Your task to perform on an android device: find snoozed emails in the gmail app Image 0: 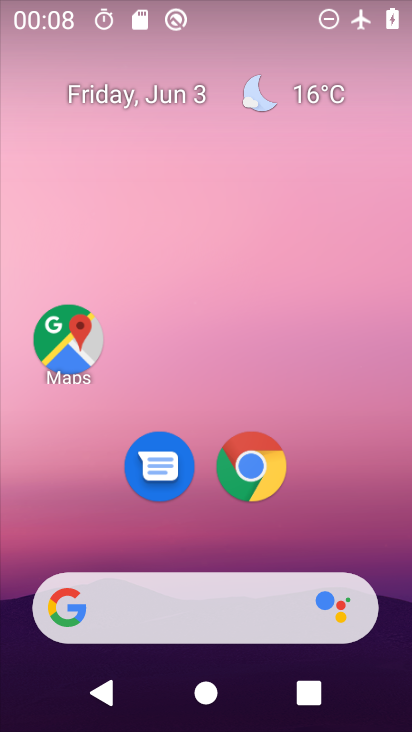
Step 0: drag from (213, 545) to (186, 197)
Your task to perform on an android device: find snoozed emails in the gmail app Image 1: 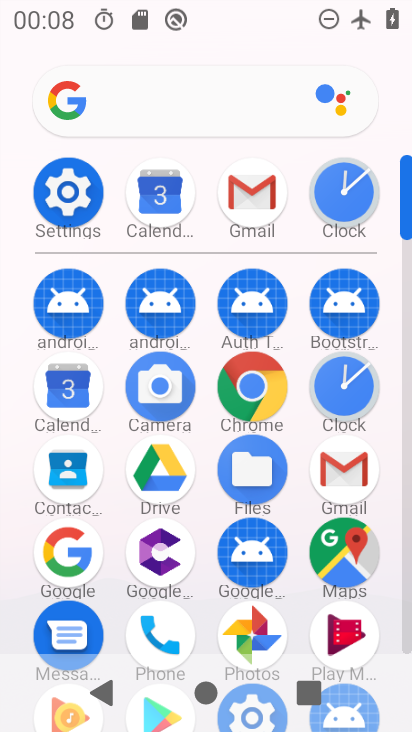
Step 1: click (257, 199)
Your task to perform on an android device: find snoozed emails in the gmail app Image 2: 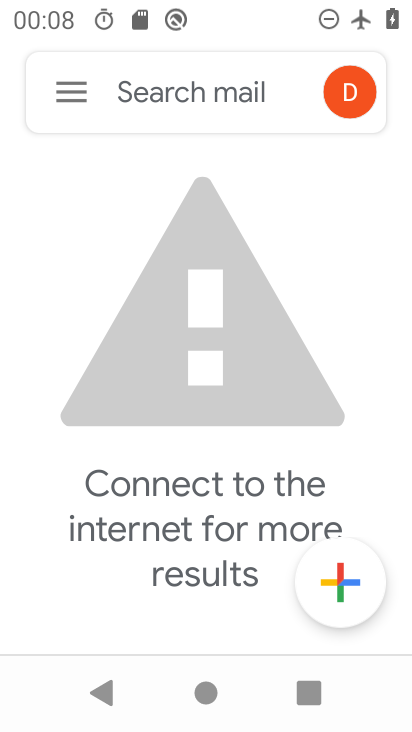
Step 2: press home button
Your task to perform on an android device: find snoozed emails in the gmail app Image 3: 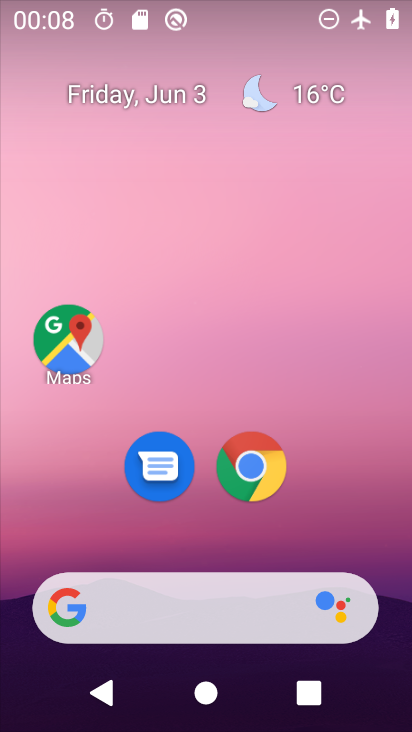
Step 3: drag from (198, 549) to (180, 196)
Your task to perform on an android device: find snoozed emails in the gmail app Image 4: 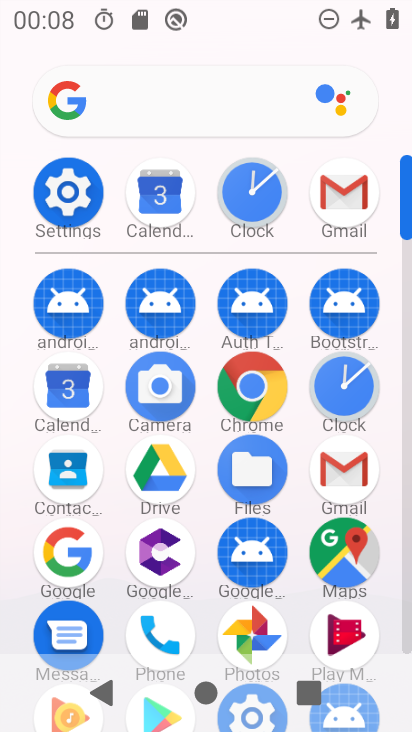
Step 4: click (326, 200)
Your task to perform on an android device: find snoozed emails in the gmail app Image 5: 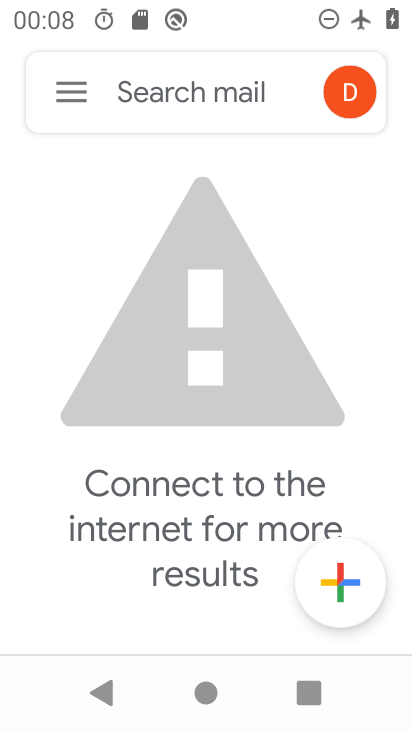
Step 5: click (59, 84)
Your task to perform on an android device: find snoozed emails in the gmail app Image 6: 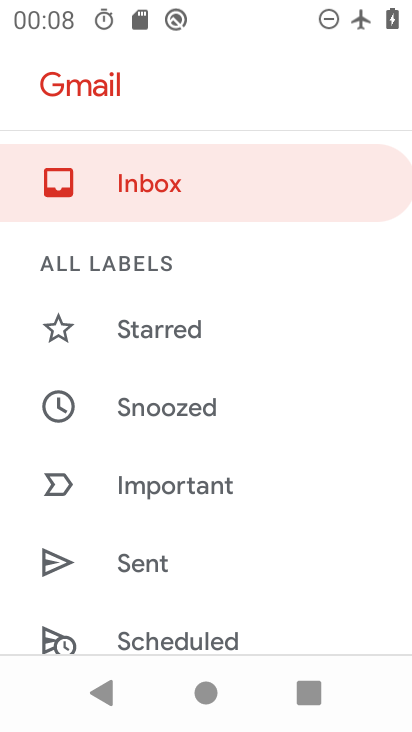
Step 6: click (198, 423)
Your task to perform on an android device: find snoozed emails in the gmail app Image 7: 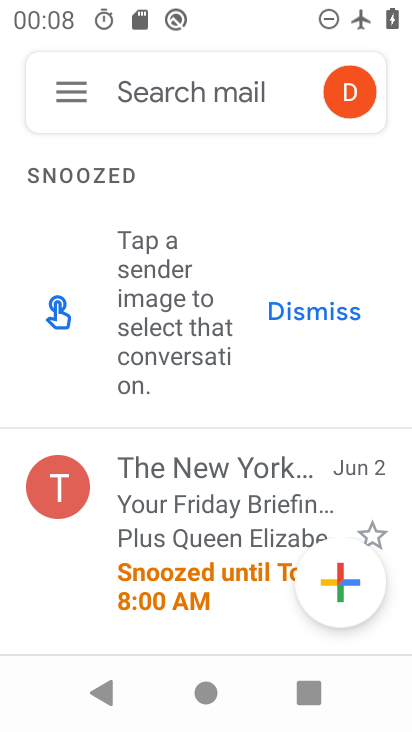
Step 7: task complete